Your task to perform on an android device: Go to sound settings Image 0: 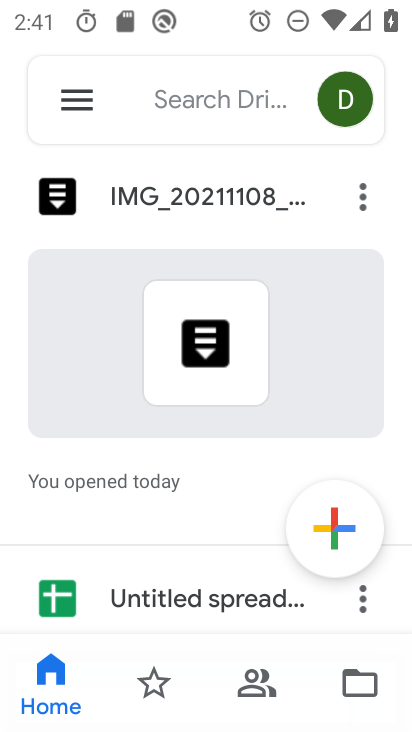
Step 0: press home button
Your task to perform on an android device: Go to sound settings Image 1: 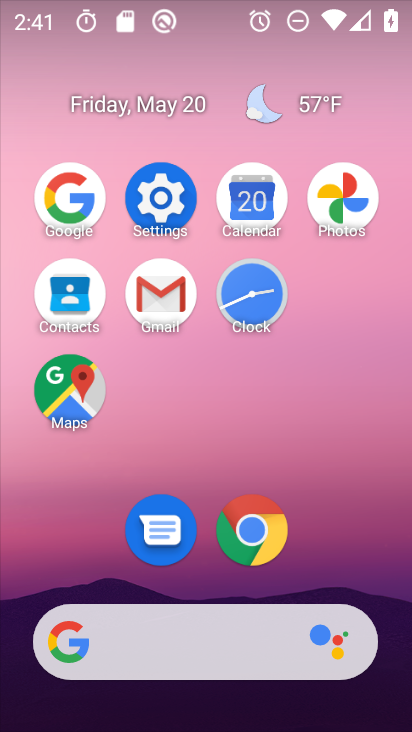
Step 1: click (161, 195)
Your task to perform on an android device: Go to sound settings Image 2: 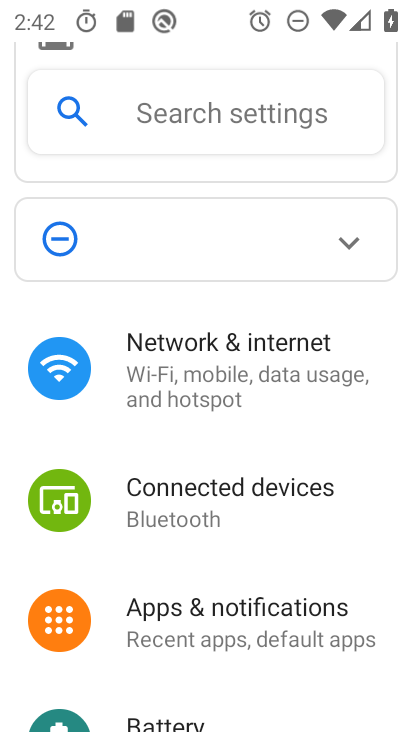
Step 2: drag from (282, 595) to (260, 123)
Your task to perform on an android device: Go to sound settings Image 3: 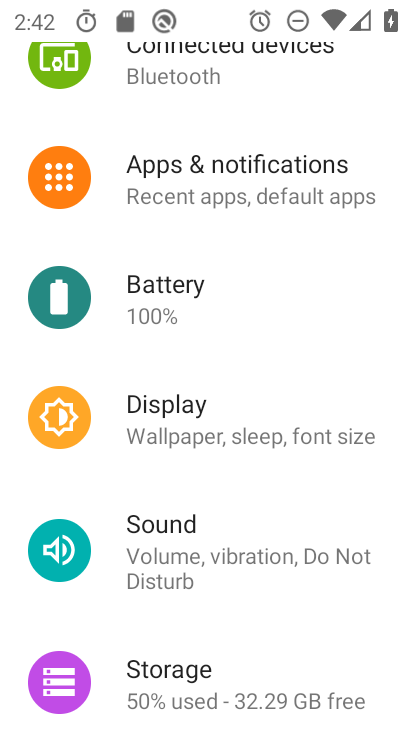
Step 3: click (246, 555)
Your task to perform on an android device: Go to sound settings Image 4: 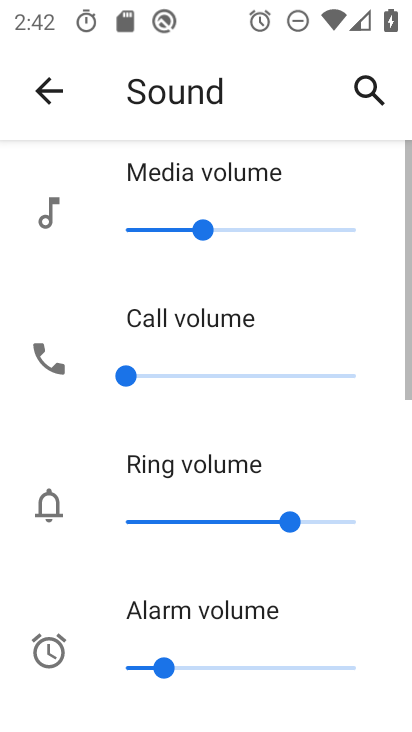
Step 4: task complete